Your task to perform on an android device: Open CNN.com Image 0: 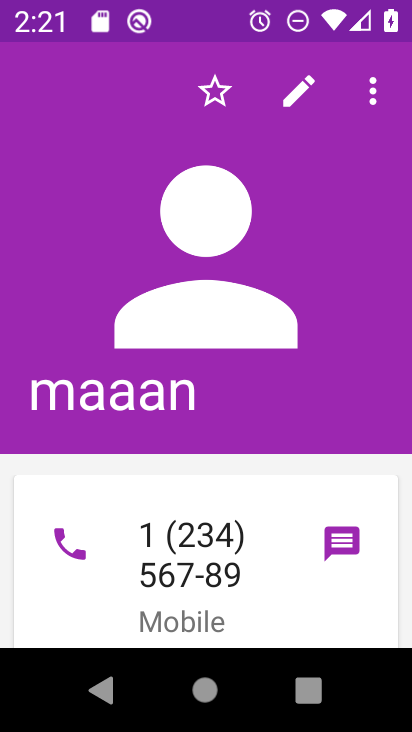
Step 0: press home button
Your task to perform on an android device: Open CNN.com Image 1: 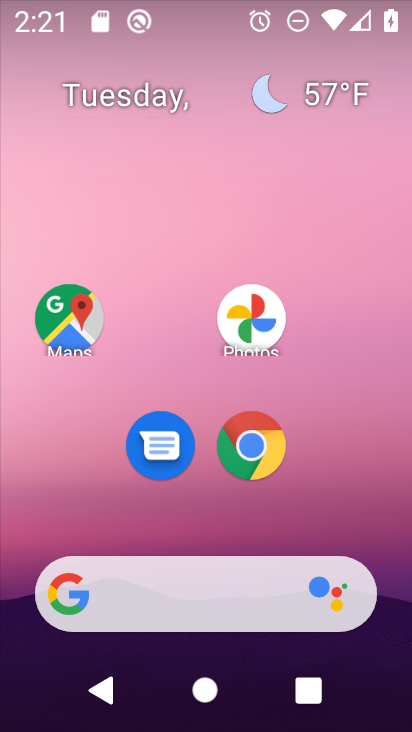
Step 1: drag from (388, 509) to (386, 158)
Your task to perform on an android device: Open CNN.com Image 2: 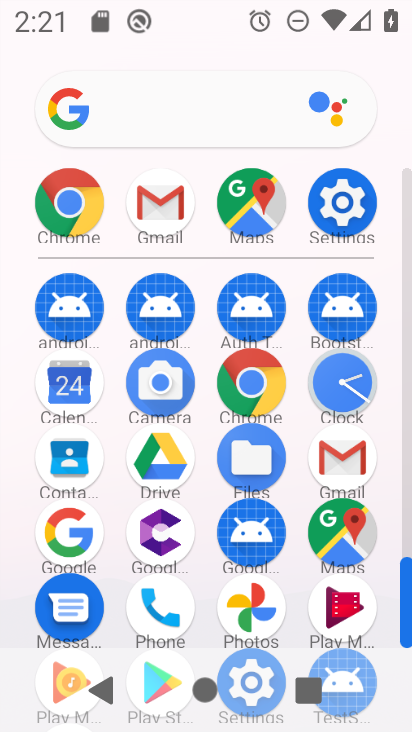
Step 2: click (256, 388)
Your task to perform on an android device: Open CNN.com Image 3: 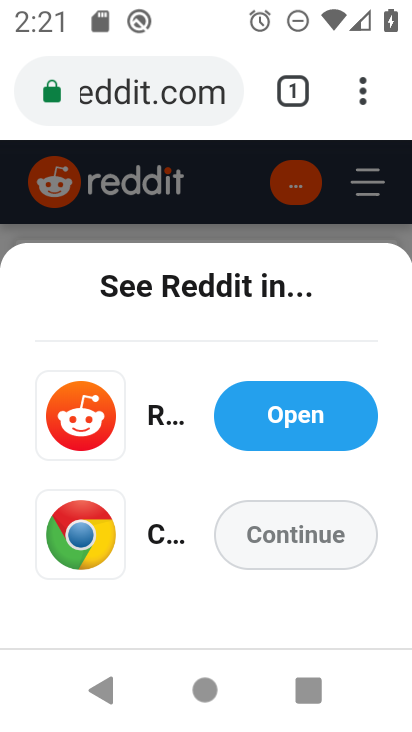
Step 3: click (157, 96)
Your task to perform on an android device: Open CNN.com Image 4: 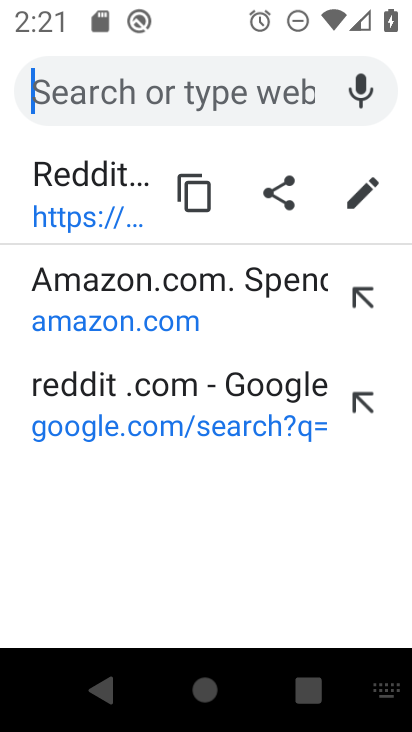
Step 4: type "cnn.bom"
Your task to perform on an android device: Open CNN.com Image 5: 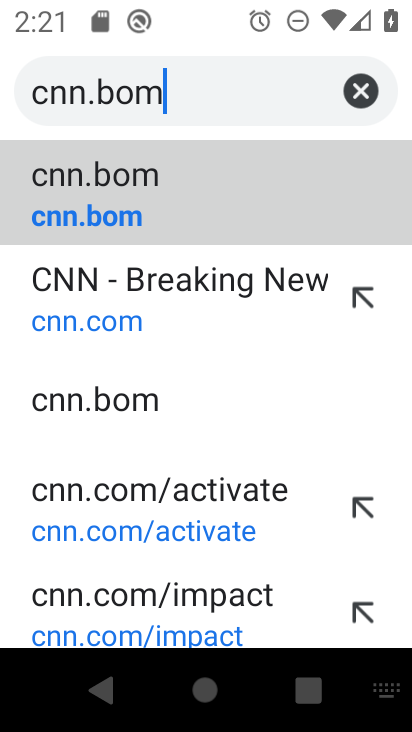
Step 5: click (106, 302)
Your task to perform on an android device: Open CNN.com Image 6: 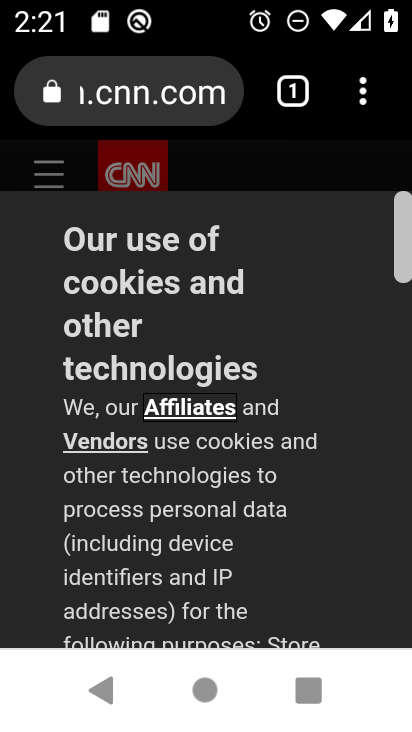
Step 6: task complete